Your task to perform on an android device: check google app version Image 0: 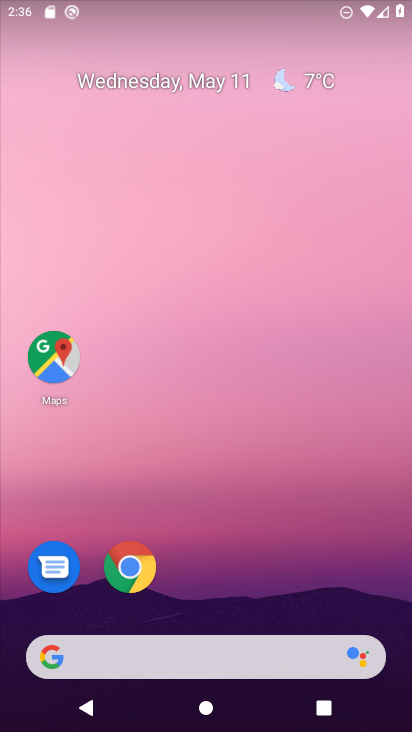
Step 0: drag from (251, 556) to (147, 146)
Your task to perform on an android device: check google app version Image 1: 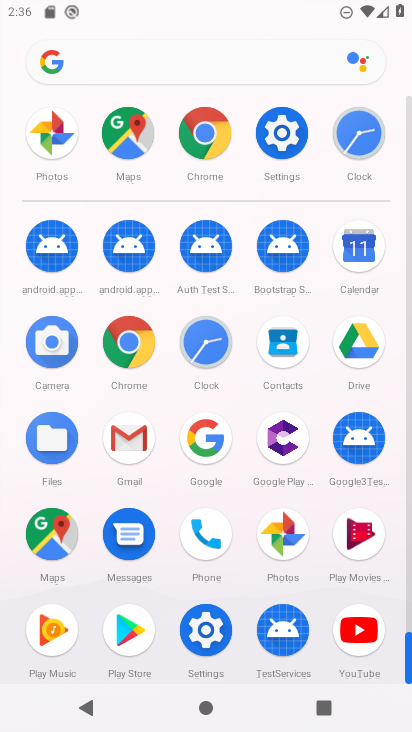
Step 1: click (203, 449)
Your task to perform on an android device: check google app version Image 2: 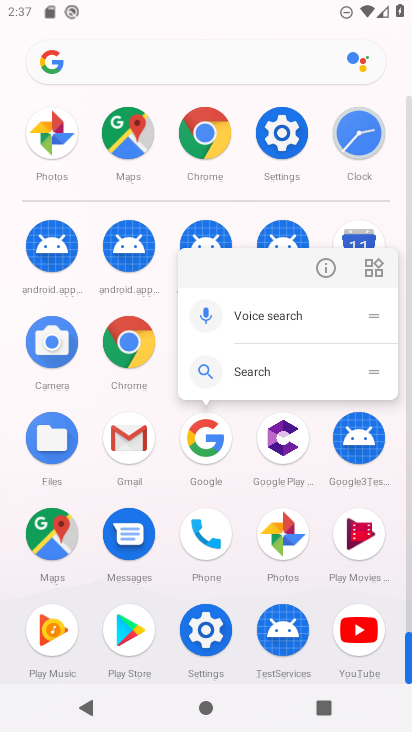
Step 2: click (322, 268)
Your task to perform on an android device: check google app version Image 3: 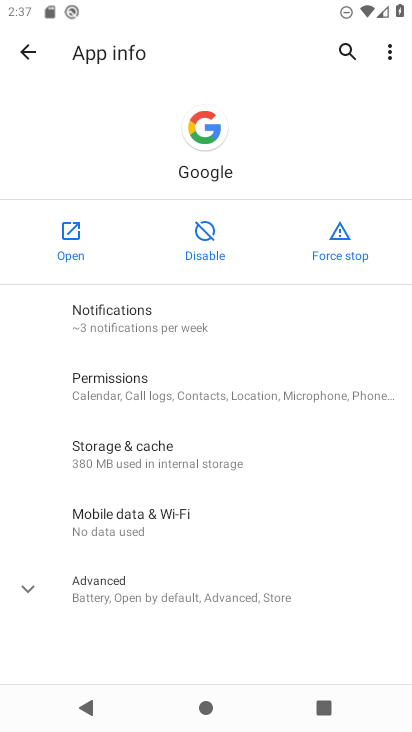
Step 3: click (201, 595)
Your task to perform on an android device: check google app version Image 4: 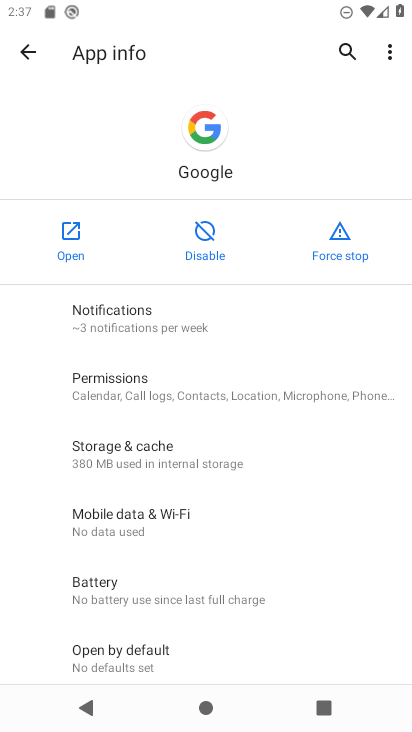
Step 4: task complete